Your task to perform on an android device: Open Google Image 0: 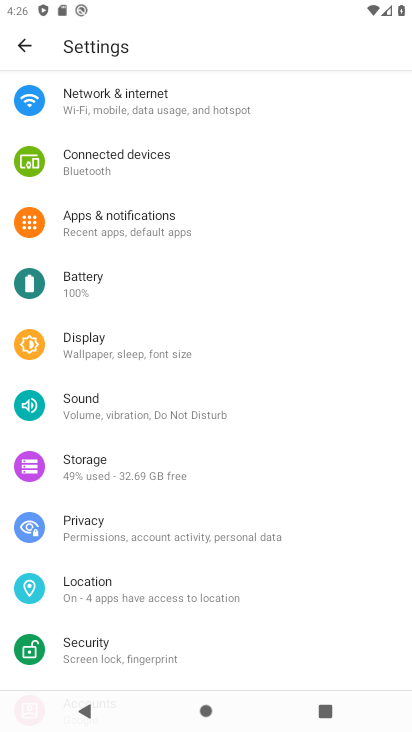
Step 0: press home button
Your task to perform on an android device: Open Google Image 1: 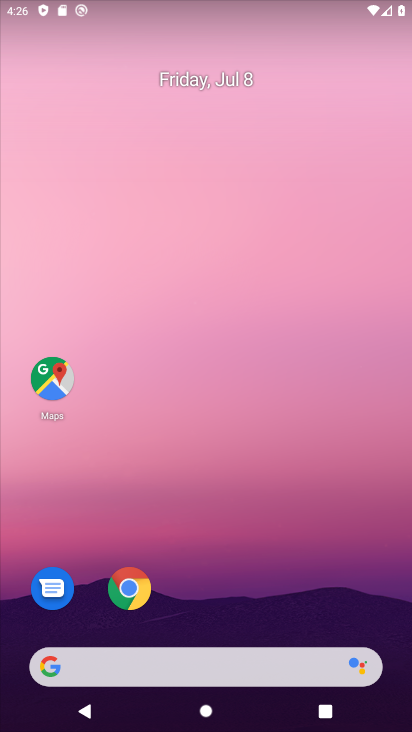
Step 1: click (210, 661)
Your task to perform on an android device: Open Google Image 2: 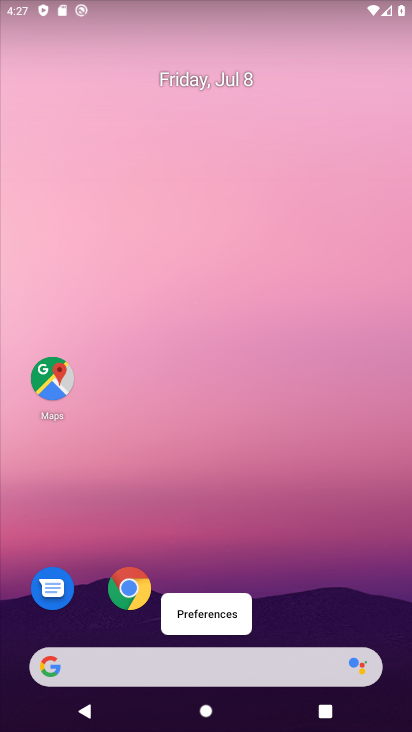
Step 2: click (127, 674)
Your task to perform on an android device: Open Google Image 3: 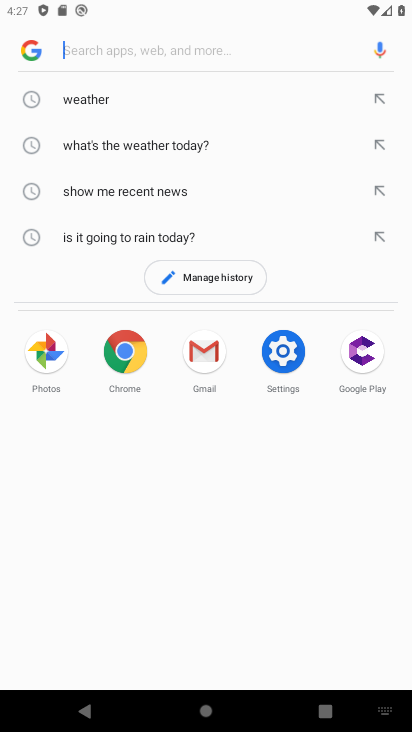
Step 3: task complete